Your task to perform on an android device: Search for Mexican restaurants on Maps Image 0: 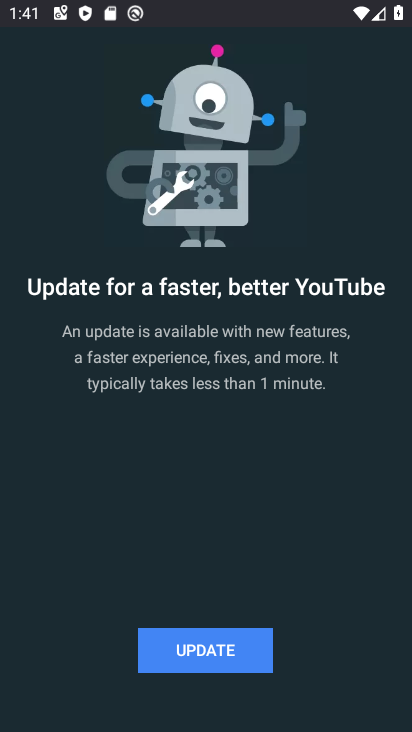
Step 0: press home button
Your task to perform on an android device: Search for Mexican restaurants on Maps Image 1: 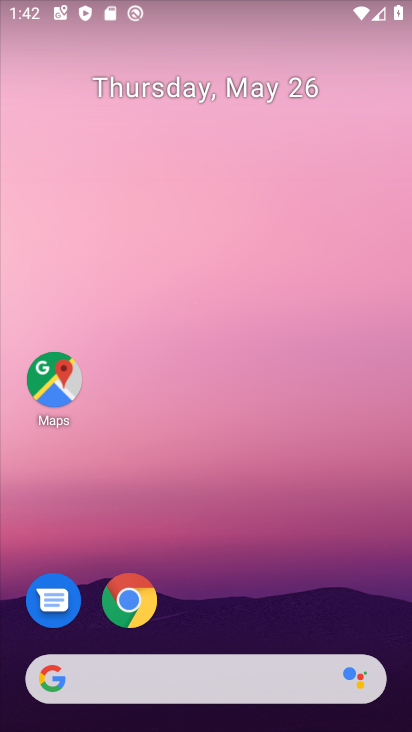
Step 1: click (66, 380)
Your task to perform on an android device: Search for Mexican restaurants on Maps Image 2: 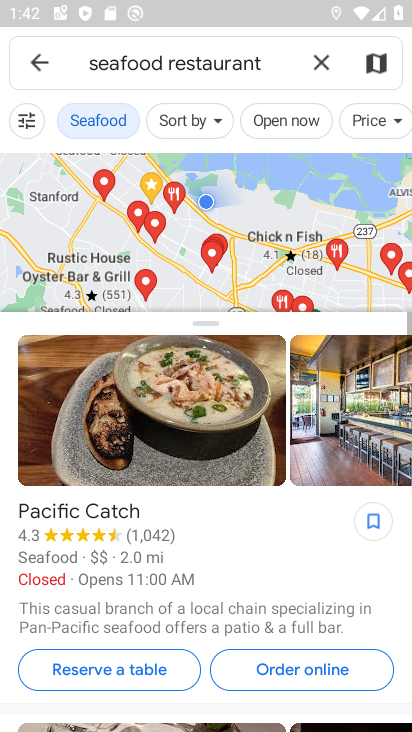
Step 2: click (305, 59)
Your task to perform on an android device: Search for Mexican restaurants on Maps Image 3: 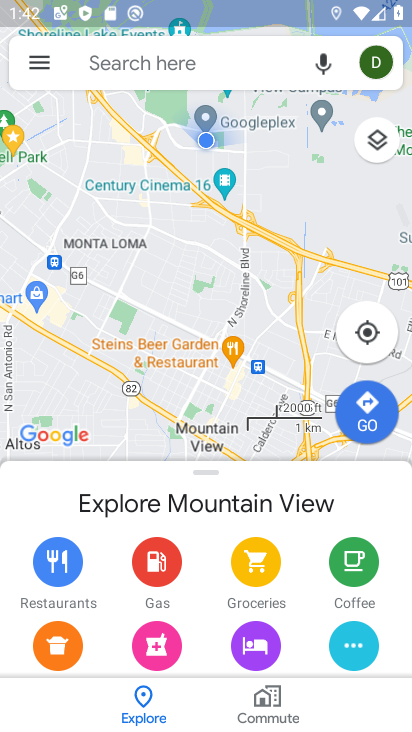
Step 3: click (255, 74)
Your task to perform on an android device: Search for Mexican restaurants on Maps Image 4: 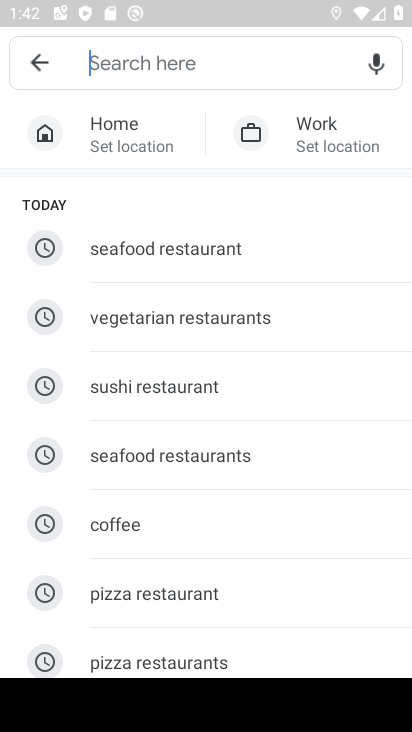
Step 4: drag from (235, 596) to (229, 343)
Your task to perform on an android device: Search for Mexican restaurants on Maps Image 5: 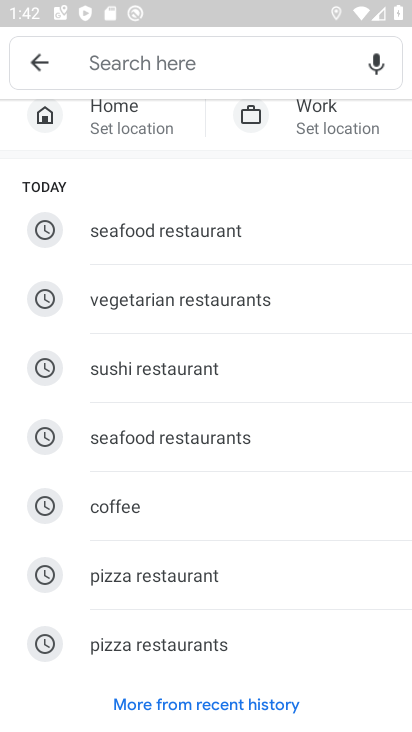
Step 5: click (207, 29)
Your task to perform on an android device: Search for Mexican restaurants on Maps Image 6: 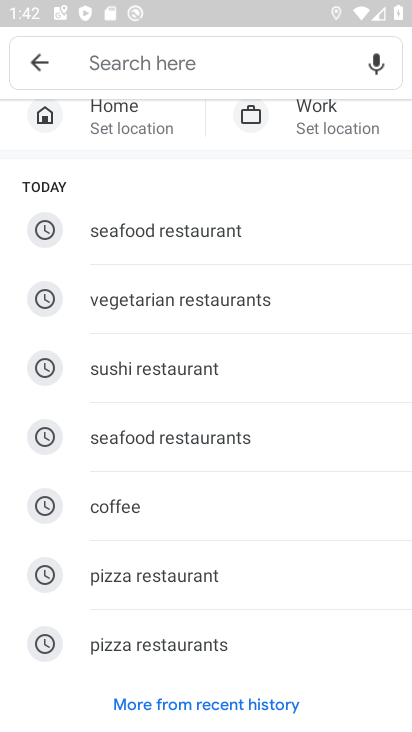
Step 6: click (207, 29)
Your task to perform on an android device: Search for Mexican restaurants on Maps Image 7: 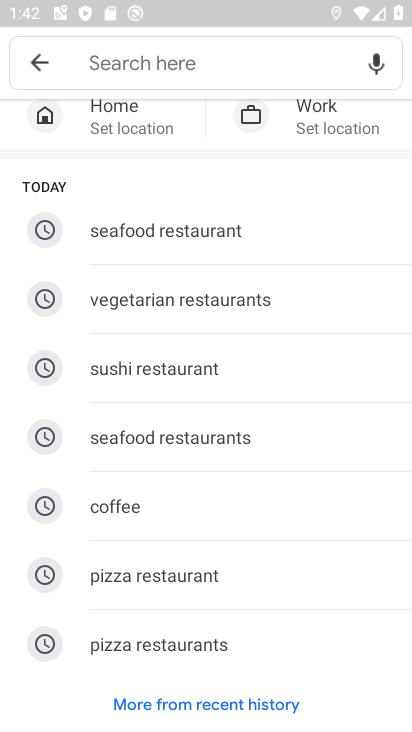
Step 7: click (198, 58)
Your task to perform on an android device: Search for Mexican restaurants on Maps Image 8: 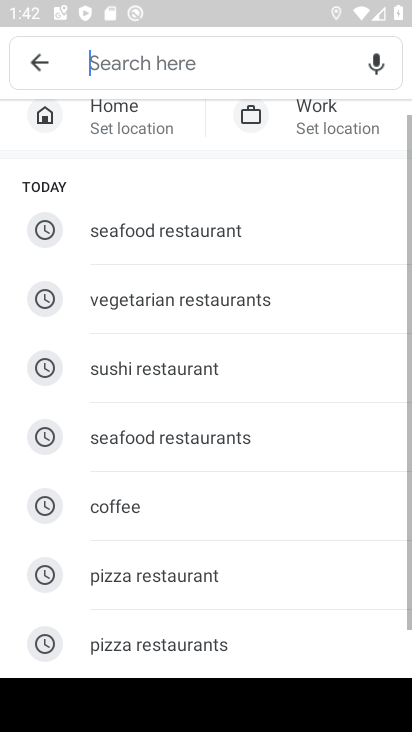
Step 8: click (198, 58)
Your task to perform on an android device: Search for Mexican restaurants on Maps Image 9: 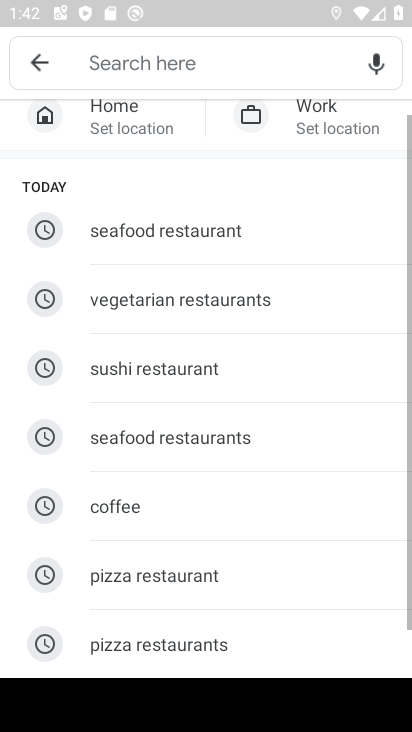
Step 9: click (198, 58)
Your task to perform on an android device: Search for Mexican restaurants on Maps Image 10: 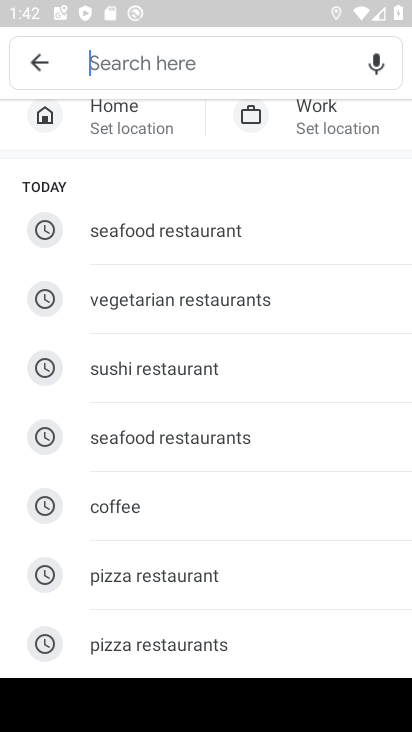
Step 10: type "mexican  restaurant"
Your task to perform on an android device: Search for Mexican restaurants on Maps Image 11: 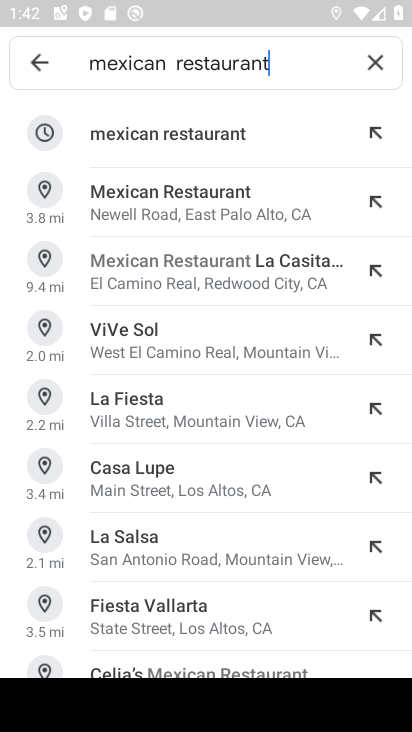
Step 11: click (162, 124)
Your task to perform on an android device: Search for Mexican restaurants on Maps Image 12: 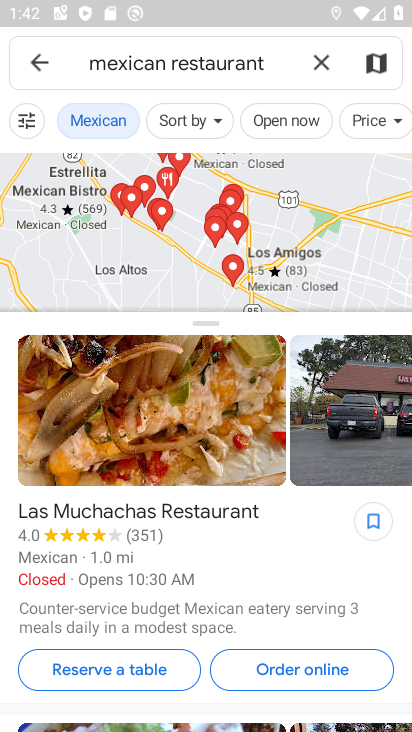
Step 12: task complete